Your task to perform on an android device: Open Yahoo.com Image 0: 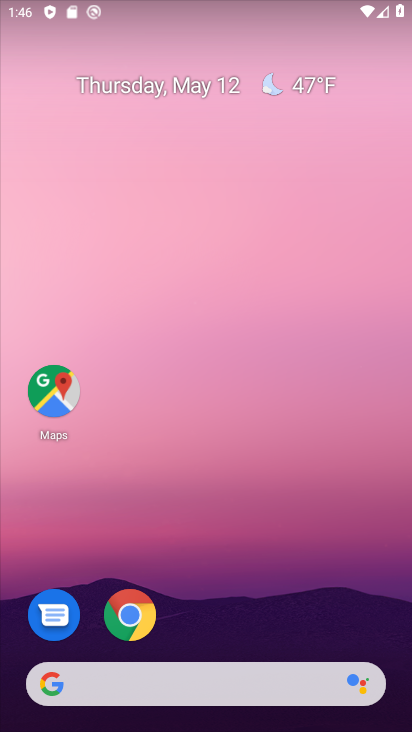
Step 0: click (131, 616)
Your task to perform on an android device: Open Yahoo.com Image 1: 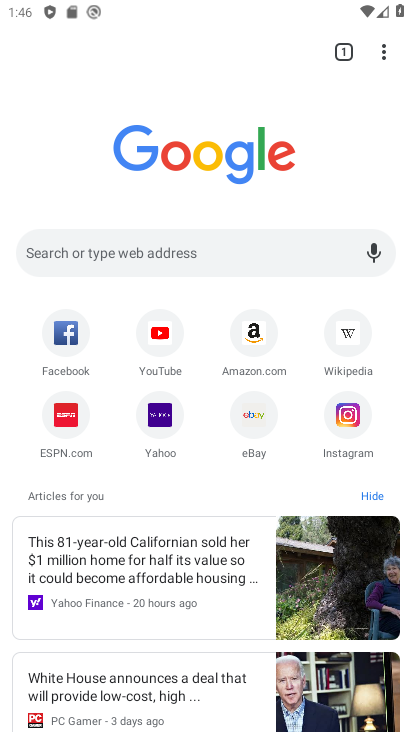
Step 1: click (159, 415)
Your task to perform on an android device: Open Yahoo.com Image 2: 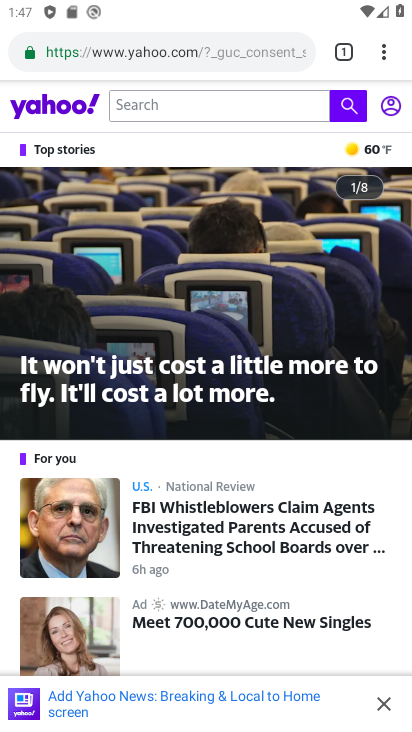
Step 2: task complete